Your task to perform on an android device: turn on the 24-hour format for clock Image 0: 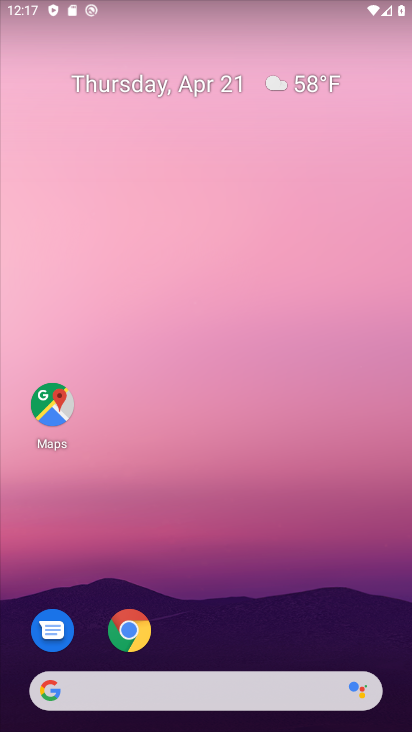
Step 0: drag from (131, 692) to (275, 125)
Your task to perform on an android device: turn on the 24-hour format for clock Image 1: 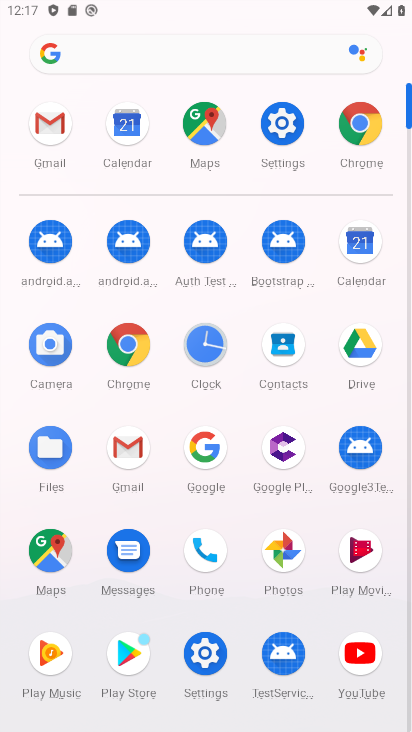
Step 1: click (206, 353)
Your task to perform on an android device: turn on the 24-hour format for clock Image 2: 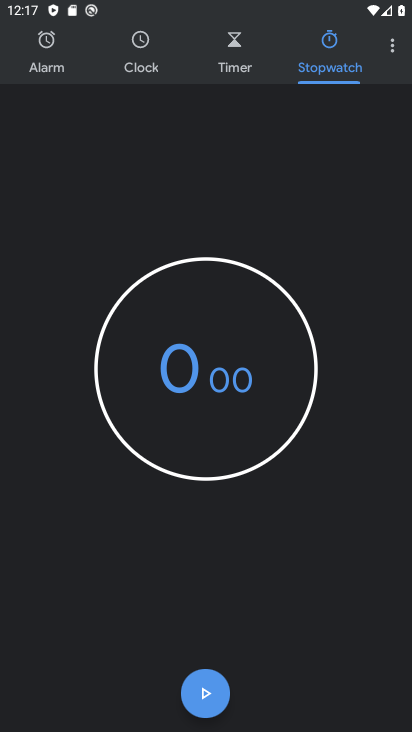
Step 2: click (392, 50)
Your task to perform on an android device: turn on the 24-hour format for clock Image 3: 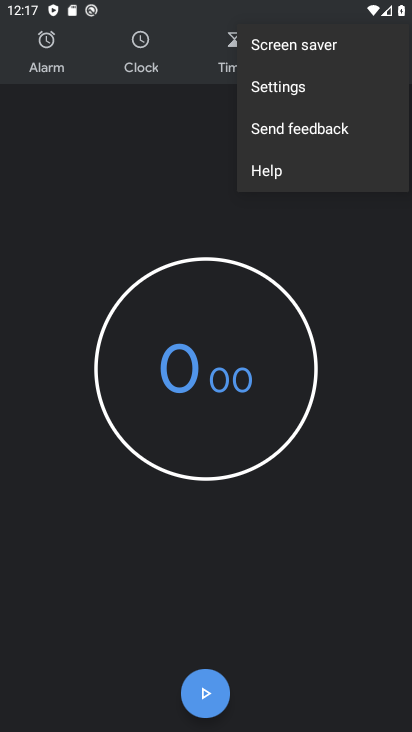
Step 3: click (302, 88)
Your task to perform on an android device: turn on the 24-hour format for clock Image 4: 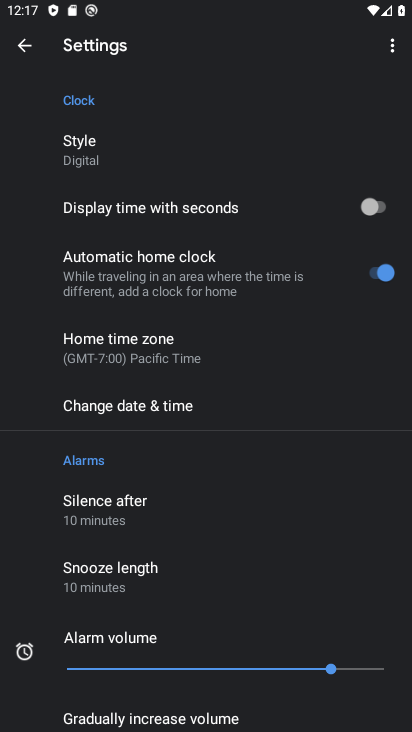
Step 4: click (164, 408)
Your task to perform on an android device: turn on the 24-hour format for clock Image 5: 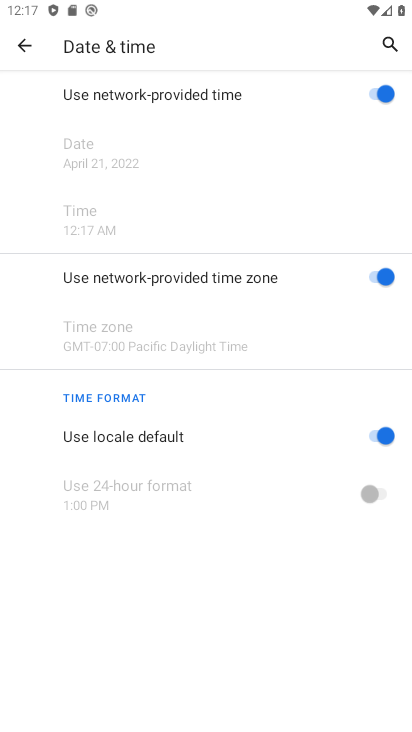
Step 5: click (375, 435)
Your task to perform on an android device: turn on the 24-hour format for clock Image 6: 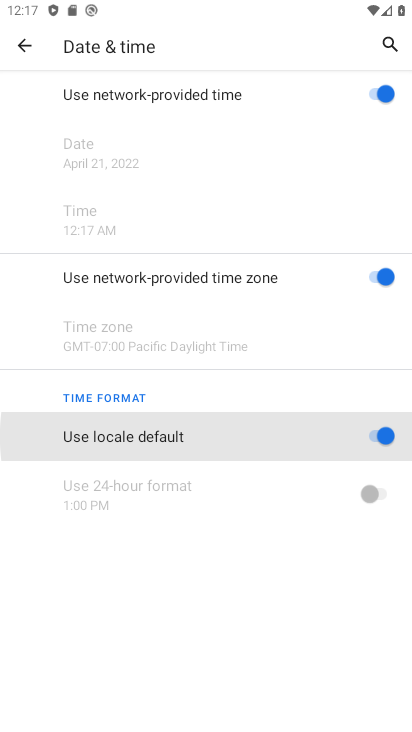
Step 6: click (379, 491)
Your task to perform on an android device: turn on the 24-hour format for clock Image 7: 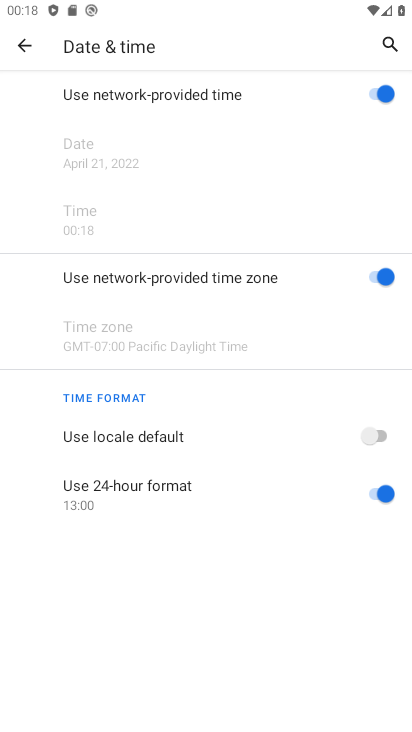
Step 7: task complete